Your task to perform on an android device: remove spam from my inbox in the gmail app Image 0: 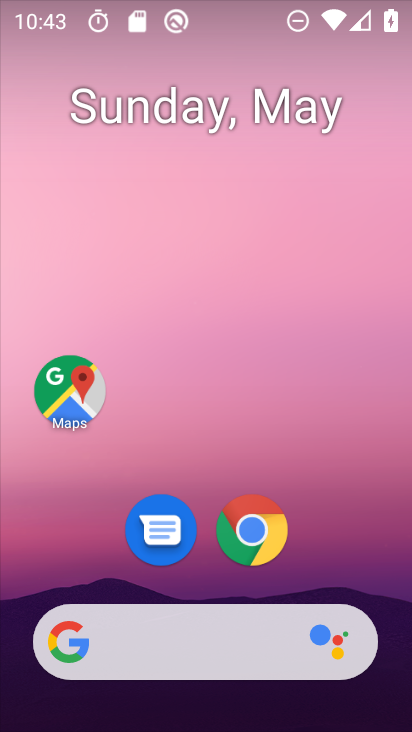
Step 0: drag from (221, 653) to (245, 52)
Your task to perform on an android device: remove spam from my inbox in the gmail app Image 1: 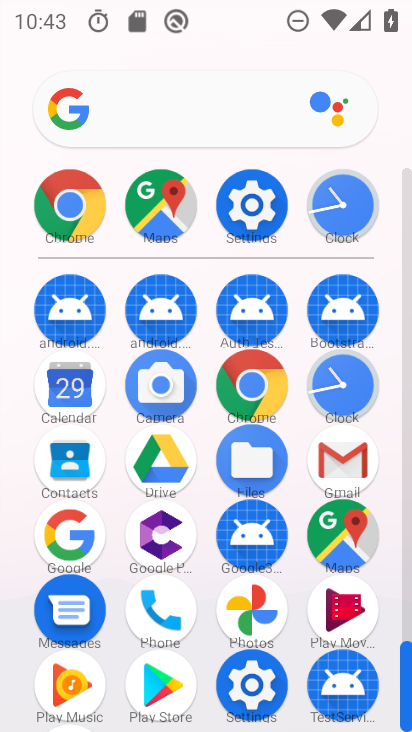
Step 1: click (327, 454)
Your task to perform on an android device: remove spam from my inbox in the gmail app Image 2: 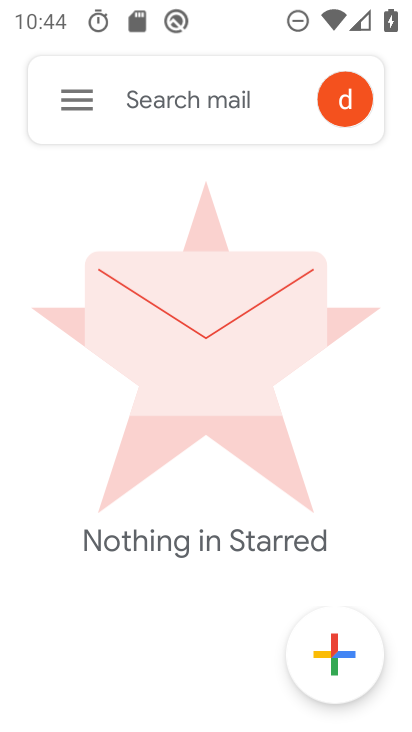
Step 2: click (88, 90)
Your task to perform on an android device: remove spam from my inbox in the gmail app Image 3: 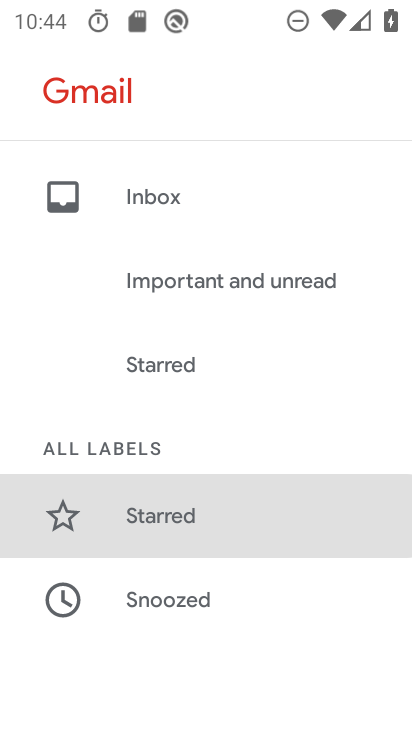
Step 3: drag from (130, 473) to (152, 166)
Your task to perform on an android device: remove spam from my inbox in the gmail app Image 4: 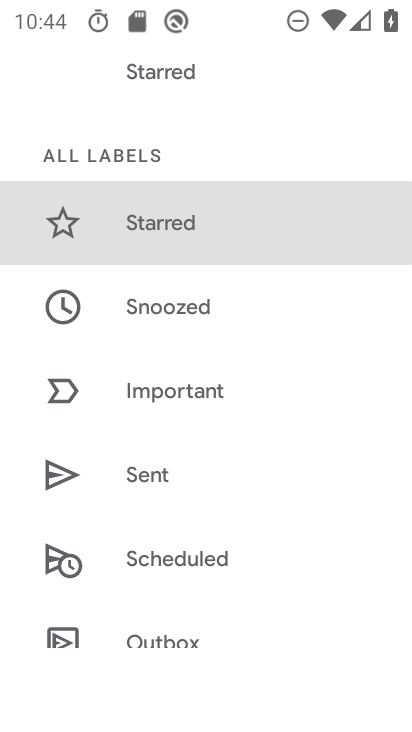
Step 4: drag from (174, 512) to (184, 260)
Your task to perform on an android device: remove spam from my inbox in the gmail app Image 5: 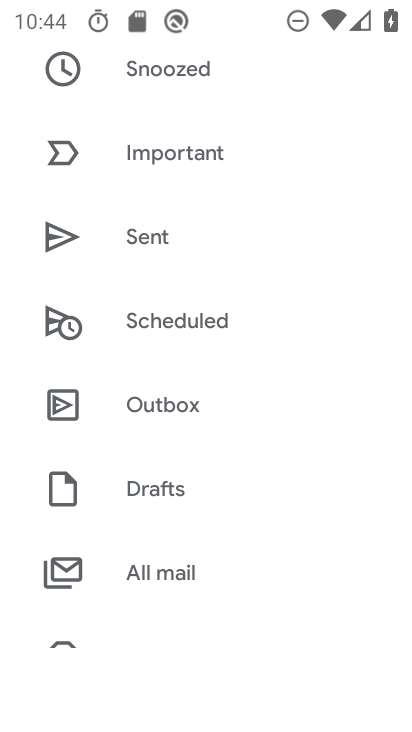
Step 5: drag from (215, 504) to (203, 297)
Your task to perform on an android device: remove spam from my inbox in the gmail app Image 6: 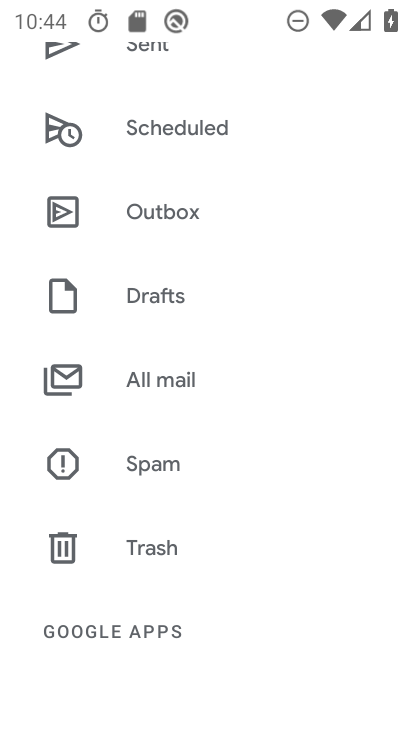
Step 6: click (179, 469)
Your task to perform on an android device: remove spam from my inbox in the gmail app Image 7: 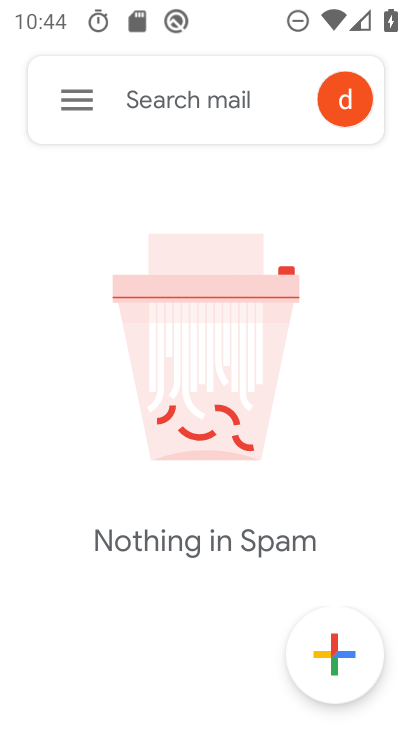
Step 7: task complete